Your task to perform on an android device: Show me productivity apps on the Play Store Image 0: 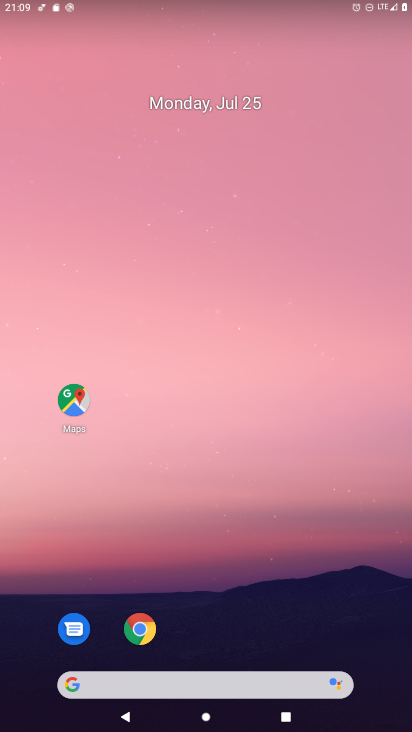
Step 0: drag from (186, 686) to (406, 105)
Your task to perform on an android device: Show me productivity apps on the Play Store Image 1: 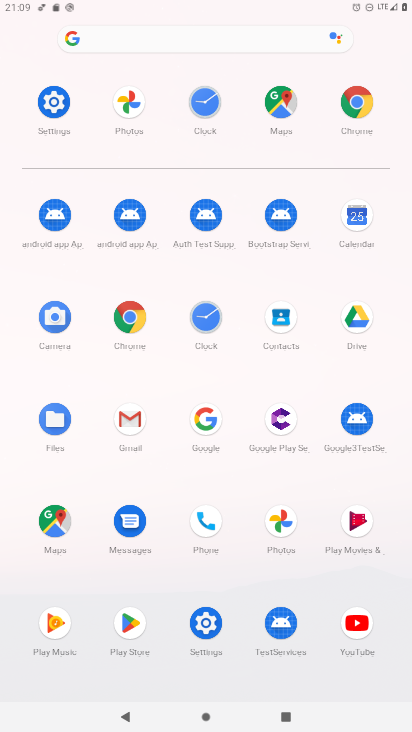
Step 1: click (129, 625)
Your task to perform on an android device: Show me productivity apps on the Play Store Image 2: 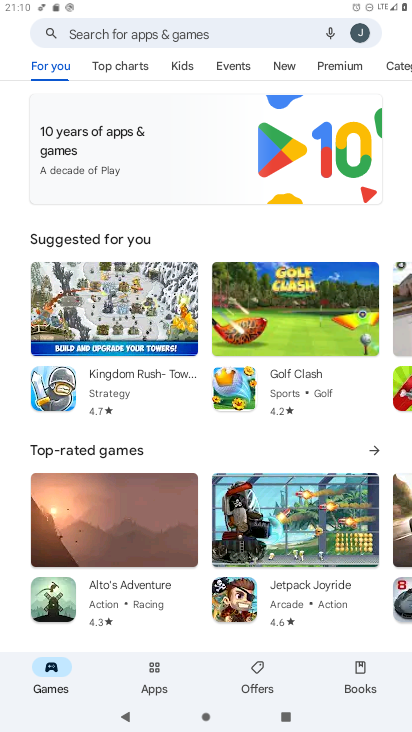
Step 2: click (154, 668)
Your task to perform on an android device: Show me productivity apps on the Play Store Image 3: 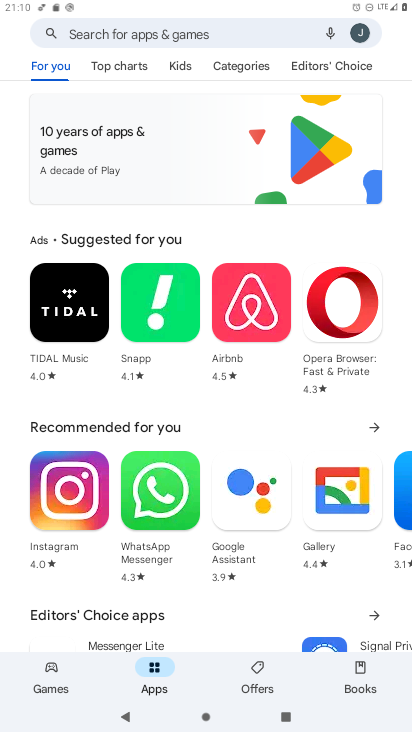
Step 3: click (237, 69)
Your task to perform on an android device: Show me productivity apps on the Play Store Image 4: 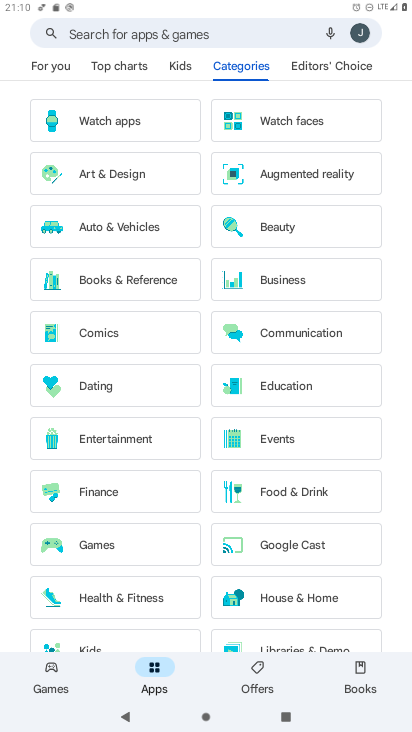
Step 4: drag from (143, 540) to (184, 462)
Your task to perform on an android device: Show me productivity apps on the Play Store Image 5: 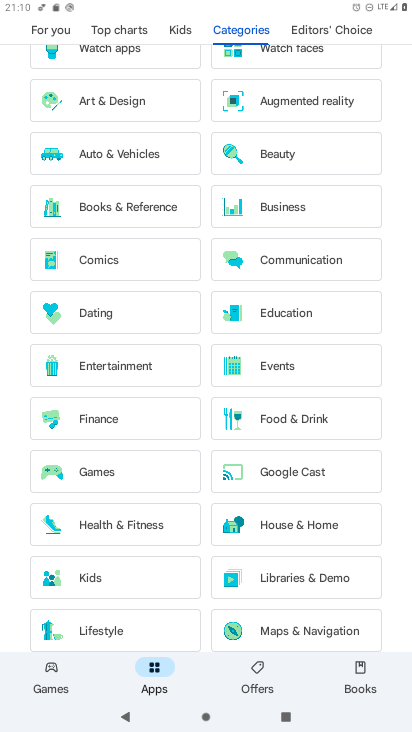
Step 5: drag from (135, 587) to (184, 495)
Your task to perform on an android device: Show me productivity apps on the Play Store Image 6: 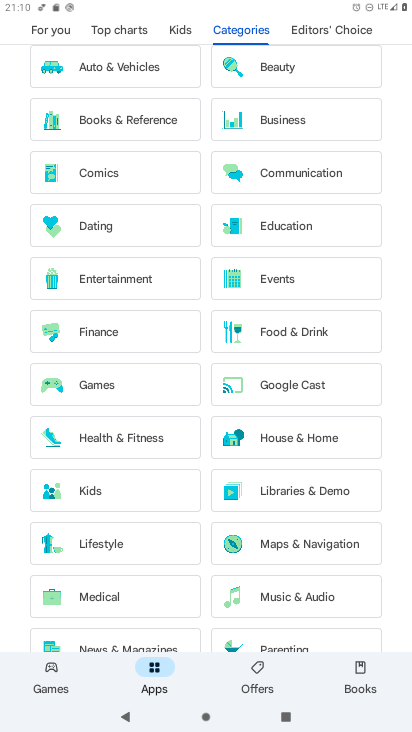
Step 6: drag from (137, 565) to (193, 469)
Your task to perform on an android device: Show me productivity apps on the Play Store Image 7: 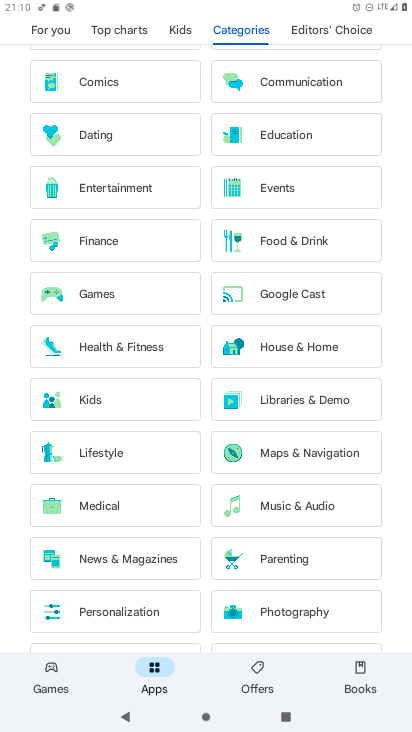
Step 7: drag from (141, 566) to (192, 475)
Your task to perform on an android device: Show me productivity apps on the Play Store Image 8: 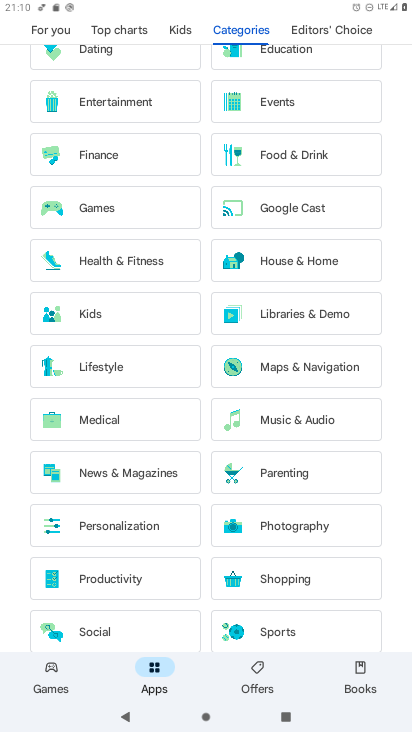
Step 8: click (116, 578)
Your task to perform on an android device: Show me productivity apps on the Play Store Image 9: 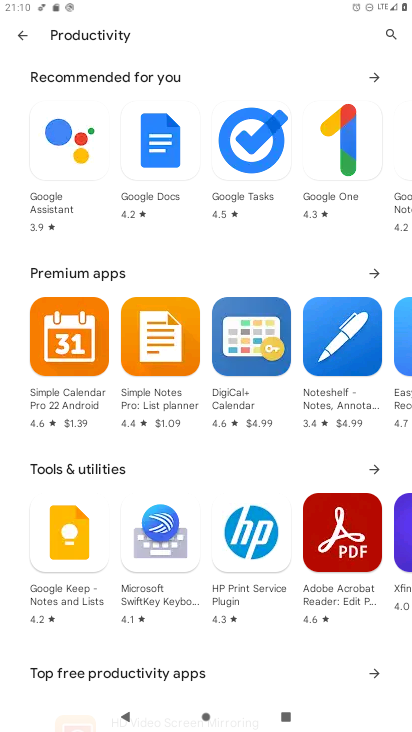
Step 9: task complete